Your task to perform on an android device: What's on my calendar today? Image 0: 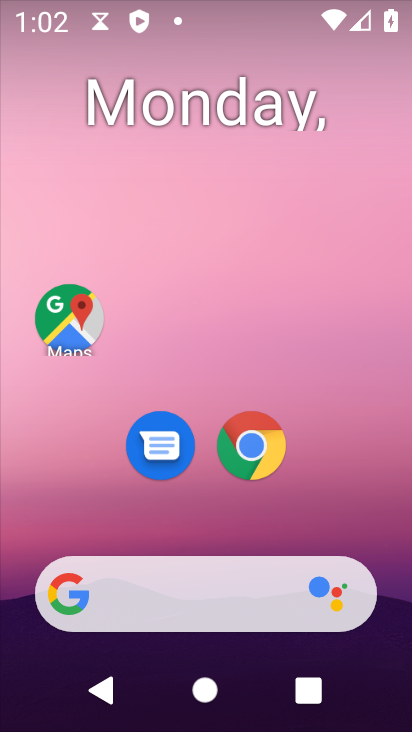
Step 0: drag from (366, 702) to (283, 290)
Your task to perform on an android device: What's on my calendar today? Image 1: 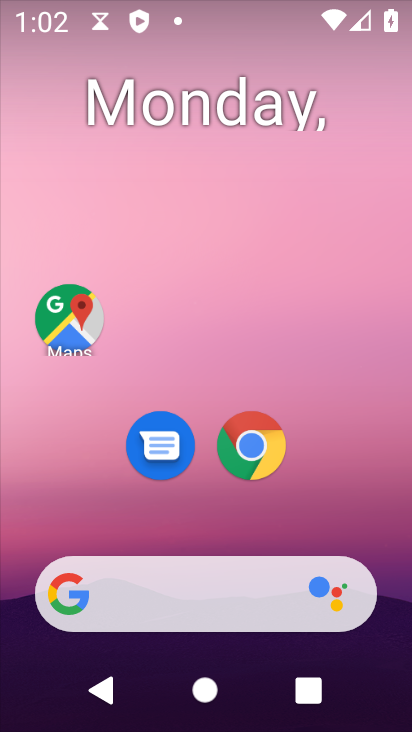
Step 1: drag from (379, 651) to (275, 107)
Your task to perform on an android device: What's on my calendar today? Image 2: 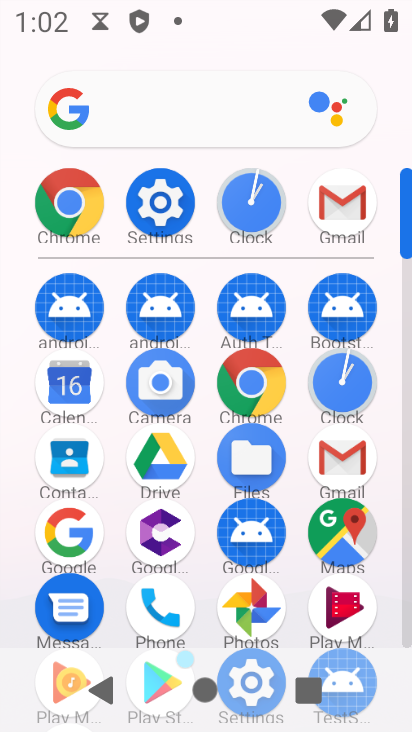
Step 2: click (63, 384)
Your task to perform on an android device: What's on my calendar today? Image 3: 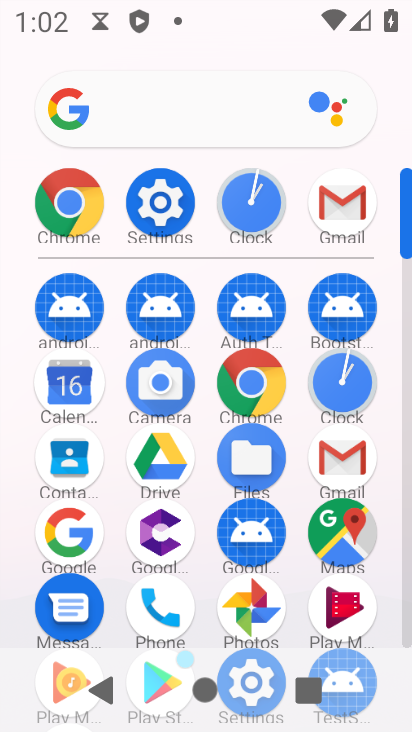
Step 3: click (63, 384)
Your task to perform on an android device: What's on my calendar today? Image 4: 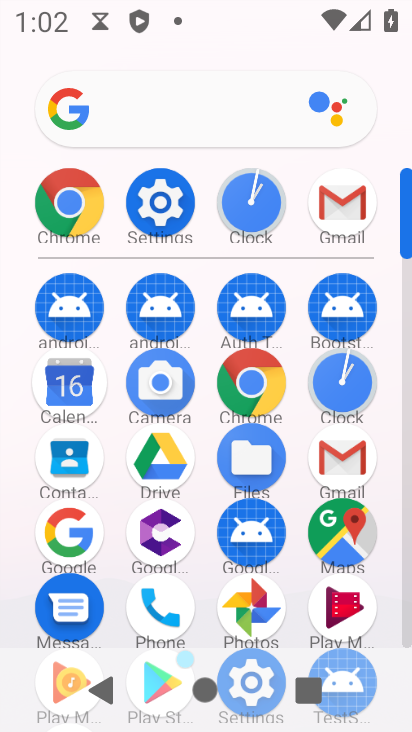
Step 4: click (63, 384)
Your task to perform on an android device: What's on my calendar today? Image 5: 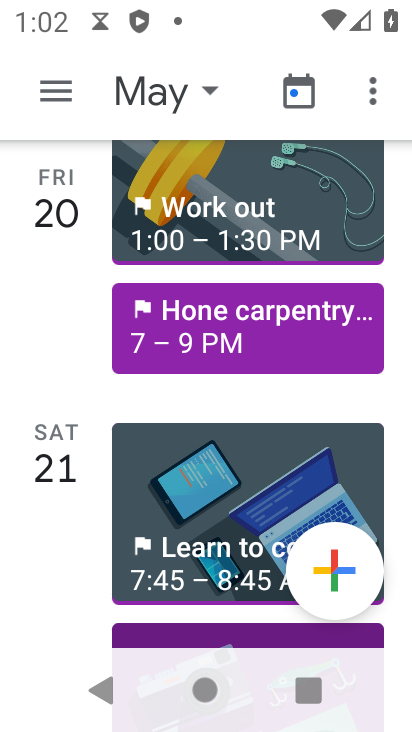
Step 5: task complete